Your task to perform on an android device: turn on notifications settings in the gmail app Image 0: 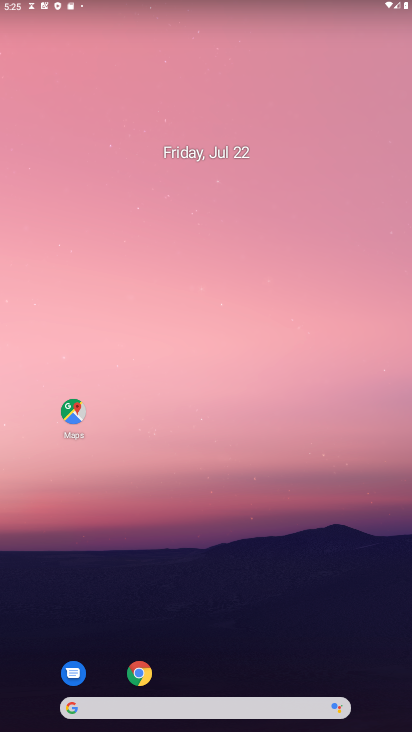
Step 0: press home button
Your task to perform on an android device: turn on notifications settings in the gmail app Image 1: 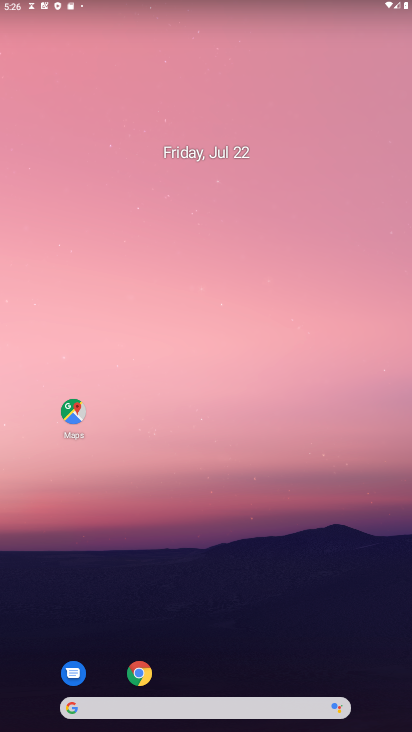
Step 1: drag from (254, 678) to (326, 105)
Your task to perform on an android device: turn on notifications settings in the gmail app Image 2: 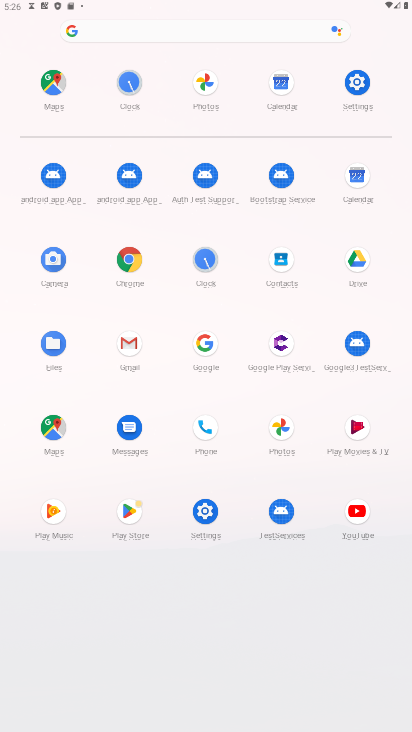
Step 2: click (126, 337)
Your task to perform on an android device: turn on notifications settings in the gmail app Image 3: 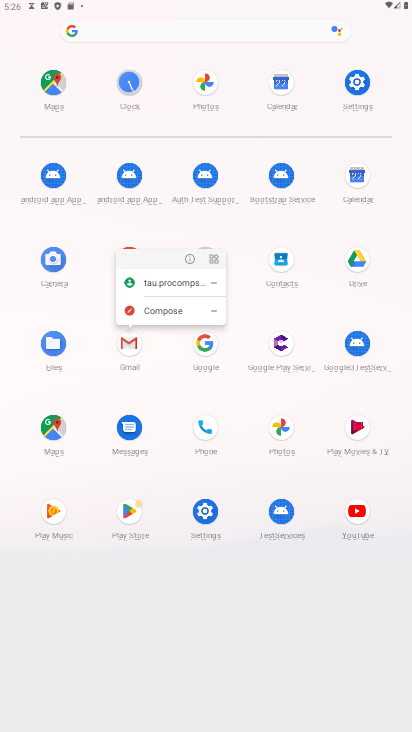
Step 3: click (126, 337)
Your task to perform on an android device: turn on notifications settings in the gmail app Image 4: 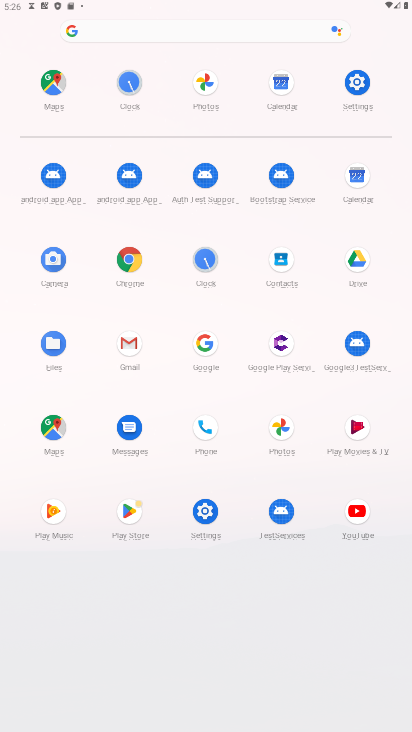
Step 4: click (96, 254)
Your task to perform on an android device: turn on notifications settings in the gmail app Image 5: 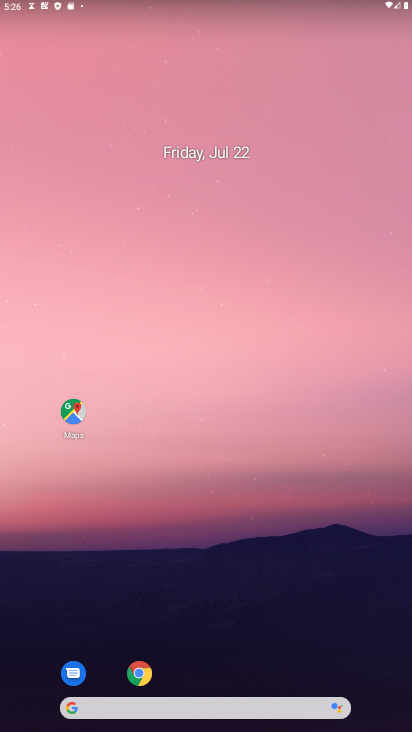
Step 5: click (137, 265)
Your task to perform on an android device: turn on notifications settings in the gmail app Image 6: 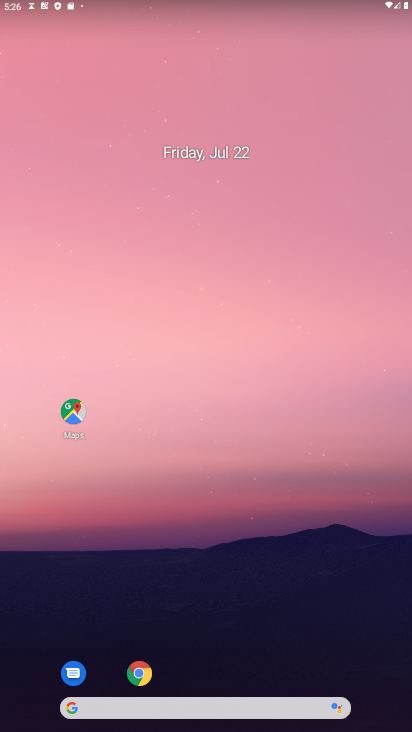
Step 6: drag from (246, 570) to (255, 77)
Your task to perform on an android device: turn on notifications settings in the gmail app Image 7: 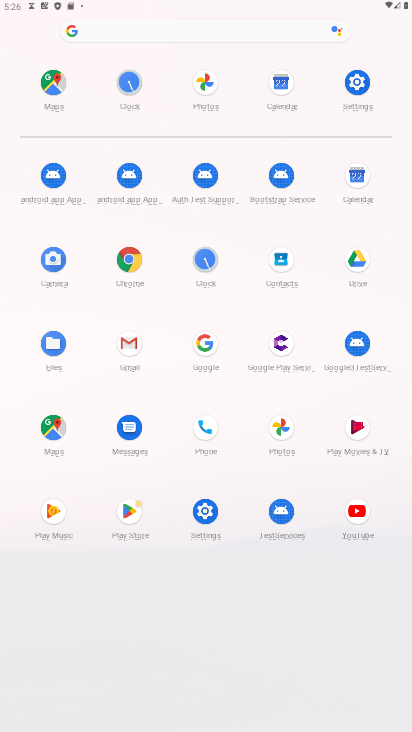
Step 7: click (131, 347)
Your task to perform on an android device: turn on notifications settings in the gmail app Image 8: 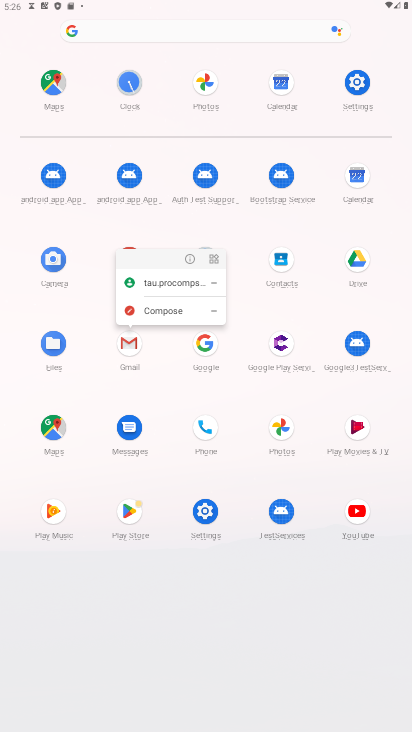
Step 8: click (131, 347)
Your task to perform on an android device: turn on notifications settings in the gmail app Image 9: 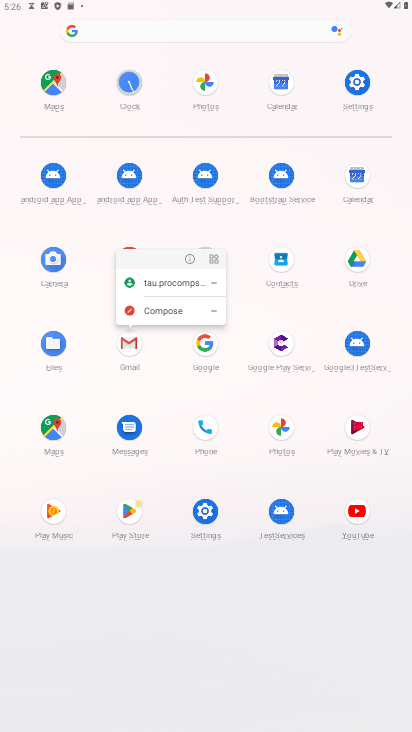
Step 9: click (131, 347)
Your task to perform on an android device: turn on notifications settings in the gmail app Image 10: 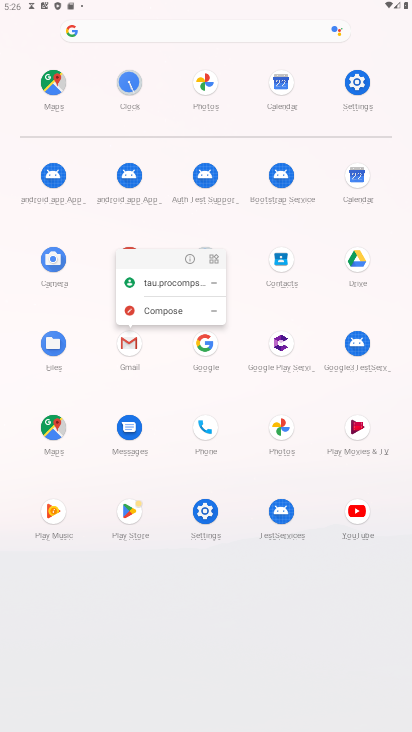
Step 10: click (131, 347)
Your task to perform on an android device: turn on notifications settings in the gmail app Image 11: 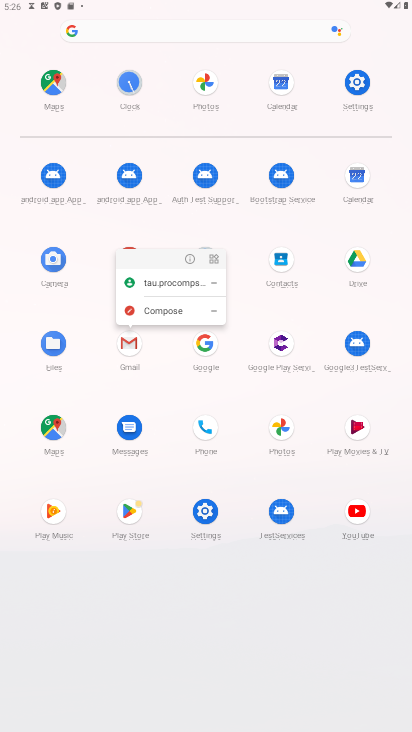
Step 11: click (131, 347)
Your task to perform on an android device: turn on notifications settings in the gmail app Image 12: 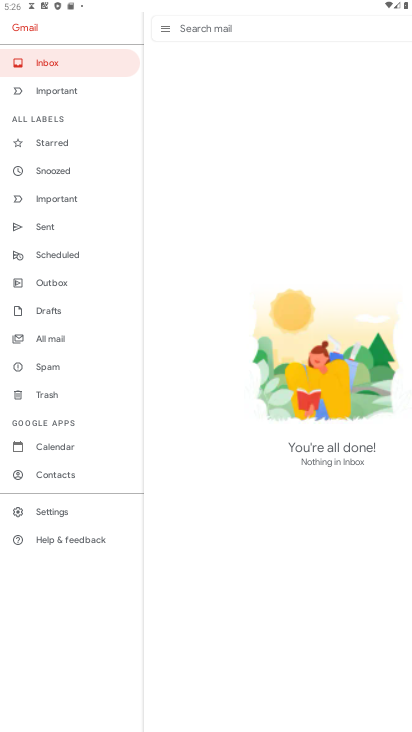
Step 12: click (46, 510)
Your task to perform on an android device: turn on notifications settings in the gmail app Image 13: 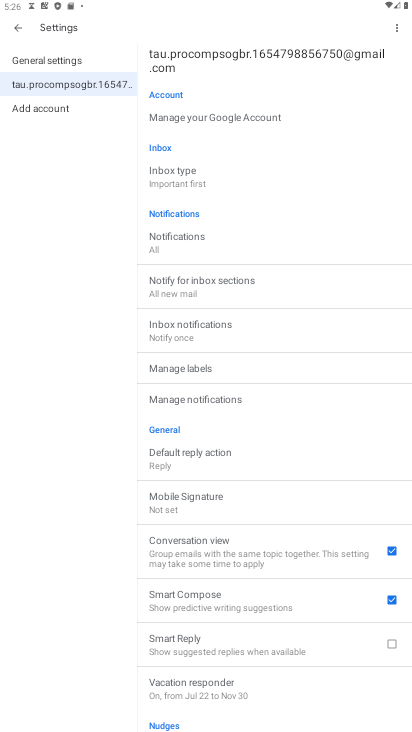
Step 13: click (176, 397)
Your task to perform on an android device: turn on notifications settings in the gmail app Image 14: 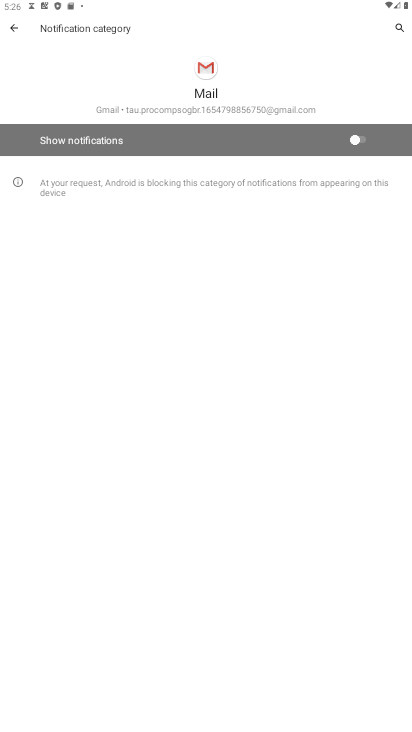
Step 14: click (358, 145)
Your task to perform on an android device: turn on notifications settings in the gmail app Image 15: 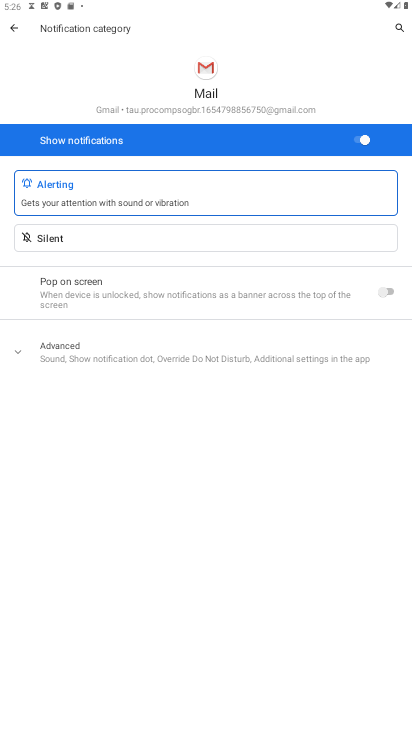
Step 15: task complete